Your task to perform on an android device: Open Amazon Image 0: 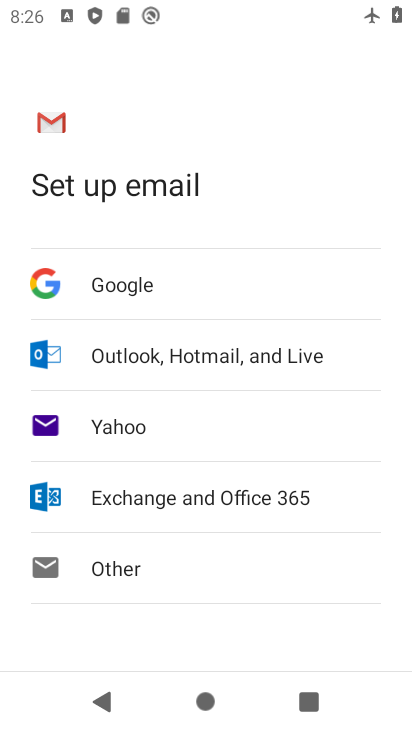
Step 0: press home button
Your task to perform on an android device: Open Amazon Image 1: 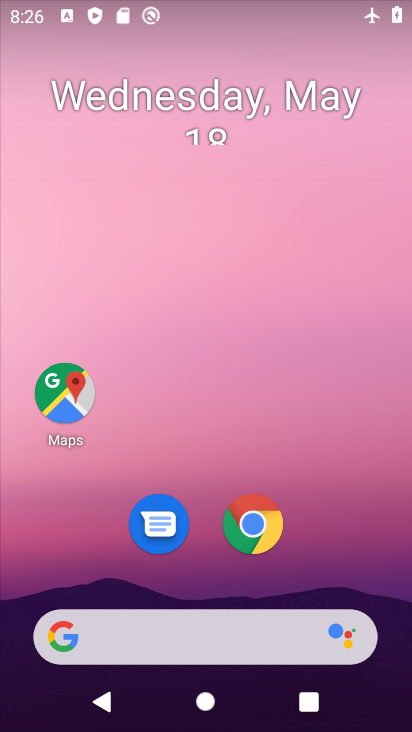
Step 1: drag from (321, 519) to (326, 15)
Your task to perform on an android device: Open Amazon Image 2: 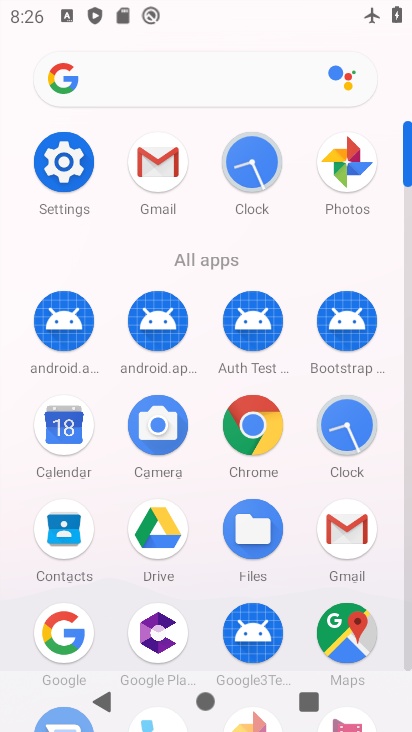
Step 2: click (257, 427)
Your task to perform on an android device: Open Amazon Image 3: 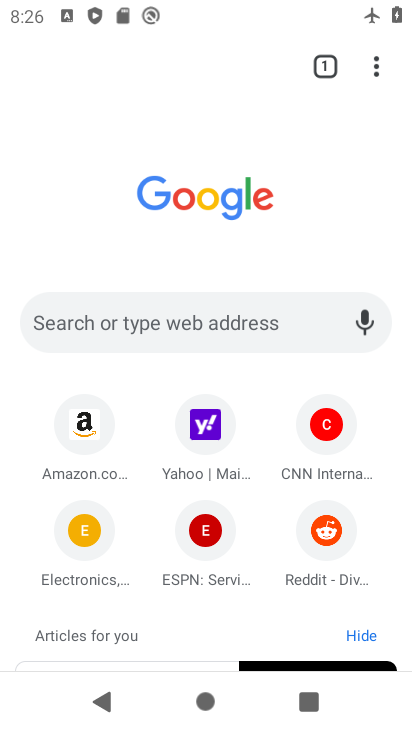
Step 3: click (86, 418)
Your task to perform on an android device: Open Amazon Image 4: 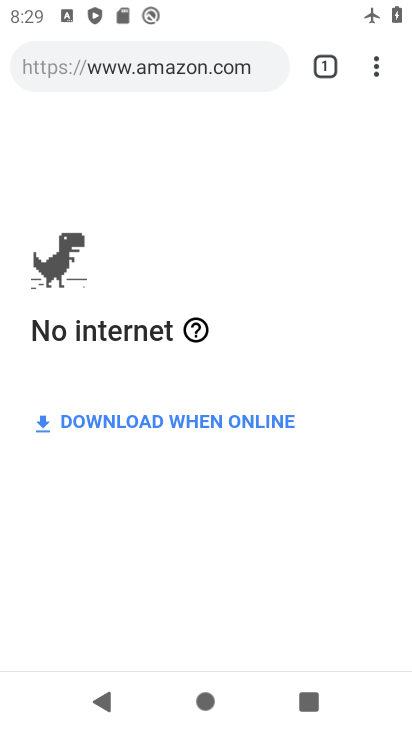
Step 4: task complete